Your task to perform on an android device: Open the phone app and click the voicemail tab. Image 0: 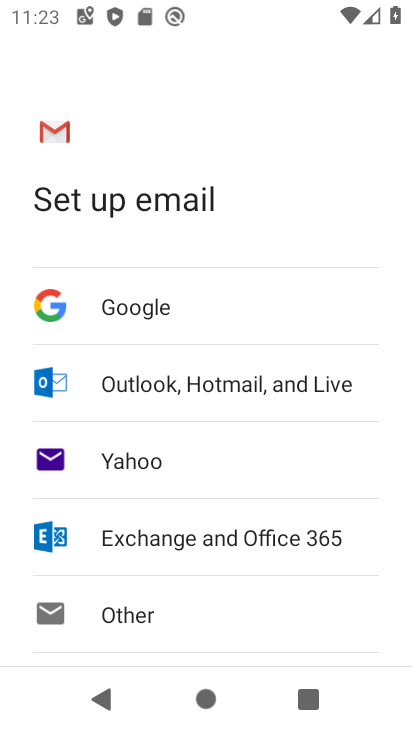
Step 0: press home button
Your task to perform on an android device: Open the phone app and click the voicemail tab. Image 1: 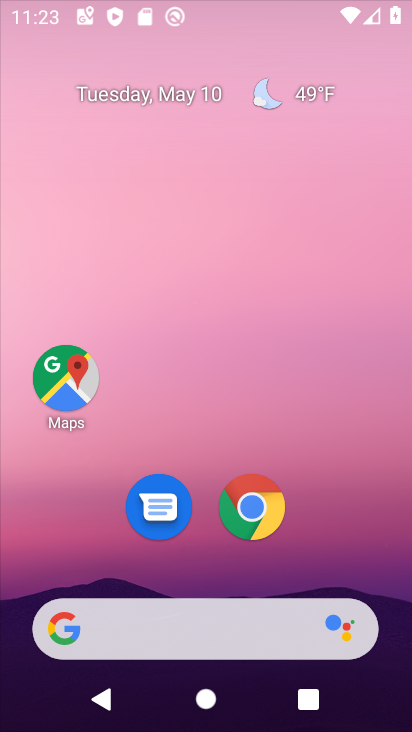
Step 1: drag from (202, 556) to (287, 11)
Your task to perform on an android device: Open the phone app and click the voicemail tab. Image 2: 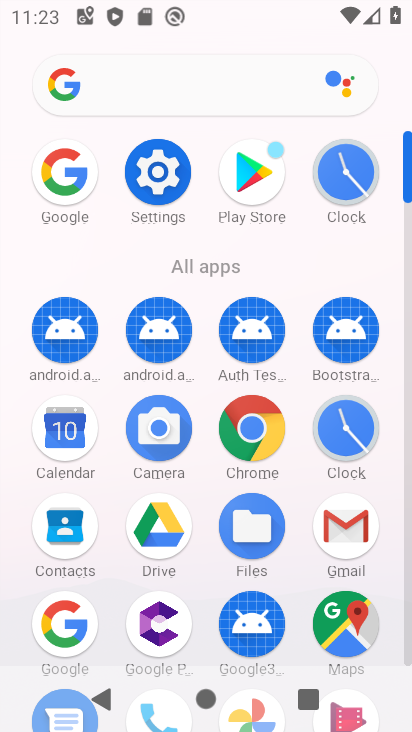
Step 2: drag from (114, 484) to (119, 180)
Your task to perform on an android device: Open the phone app and click the voicemail tab. Image 3: 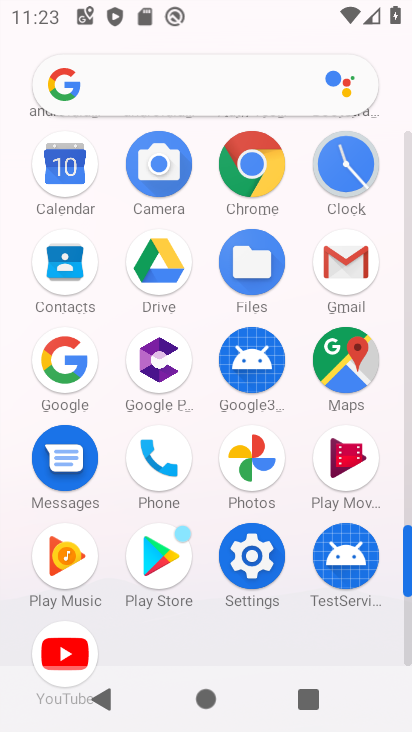
Step 3: click (158, 463)
Your task to perform on an android device: Open the phone app and click the voicemail tab. Image 4: 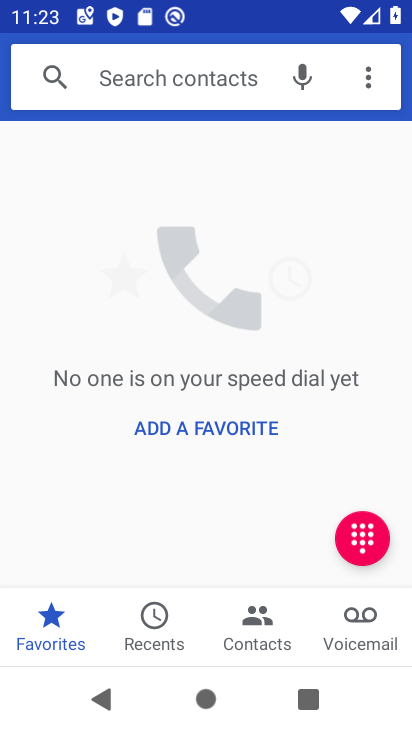
Step 4: click (371, 618)
Your task to perform on an android device: Open the phone app and click the voicemail tab. Image 5: 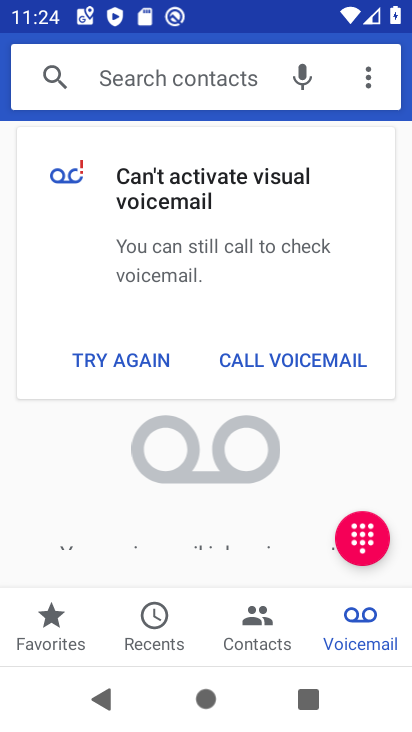
Step 5: task complete